Your task to perform on an android device: turn on showing notifications on the lock screen Image 0: 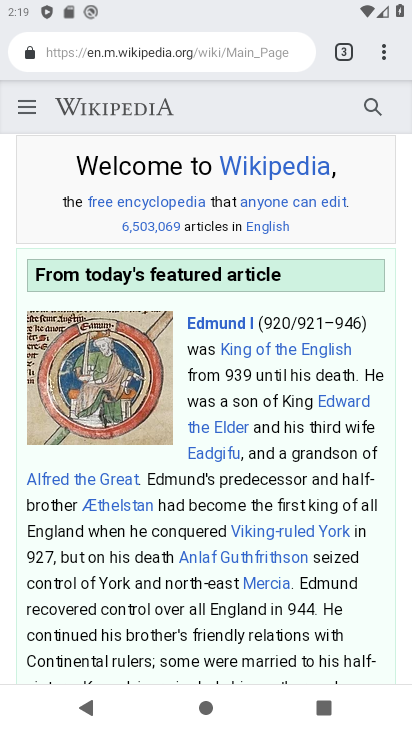
Step 0: press back button
Your task to perform on an android device: turn on showing notifications on the lock screen Image 1: 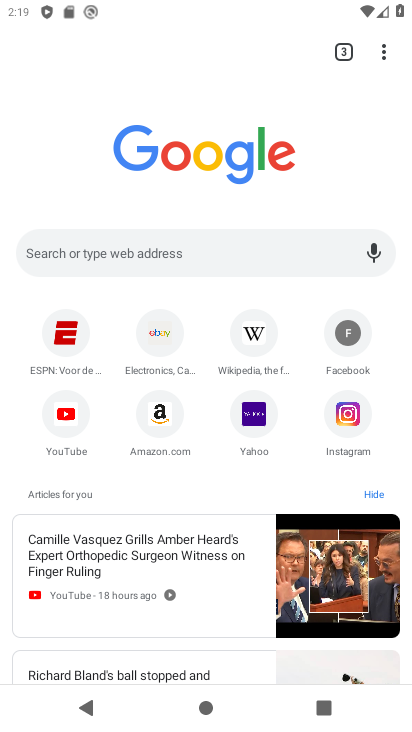
Step 1: press home button
Your task to perform on an android device: turn on showing notifications on the lock screen Image 2: 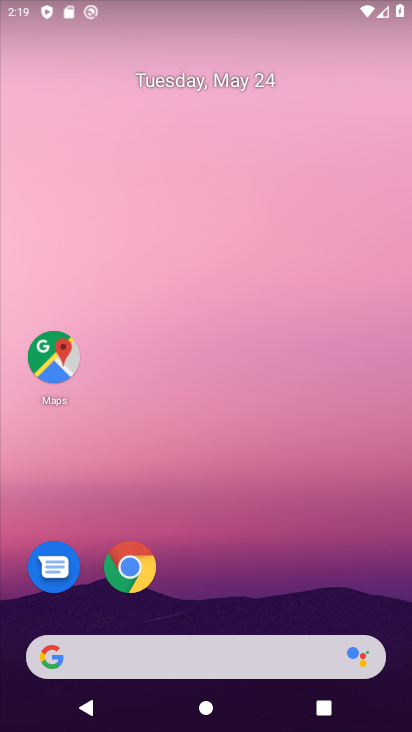
Step 2: drag from (224, 586) to (276, 18)
Your task to perform on an android device: turn on showing notifications on the lock screen Image 3: 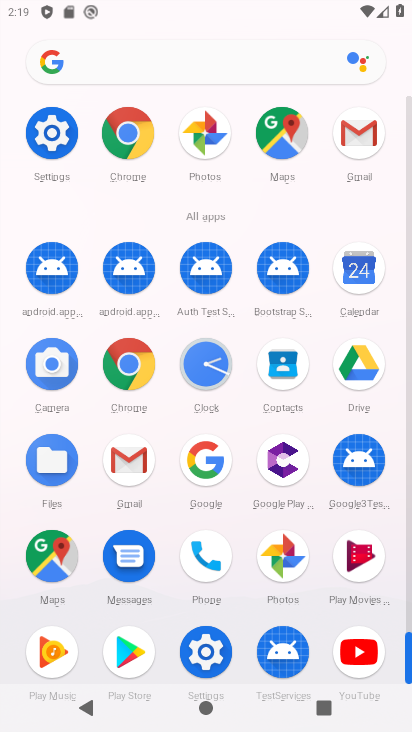
Step 3: click (43, 137)
Your task to perform on an android device: turn on showing notifications on the lock screen Image 4: 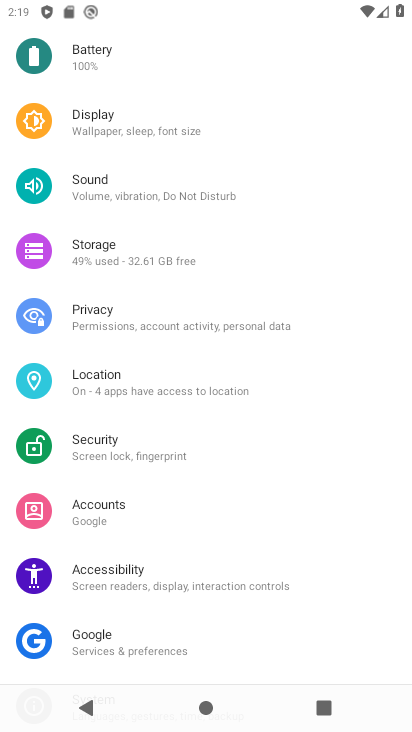
Step 4: drag from (146, 98) to (138, 635)
Your task to perform on an android device: turn on showing notifications on the lock screen Image 5: 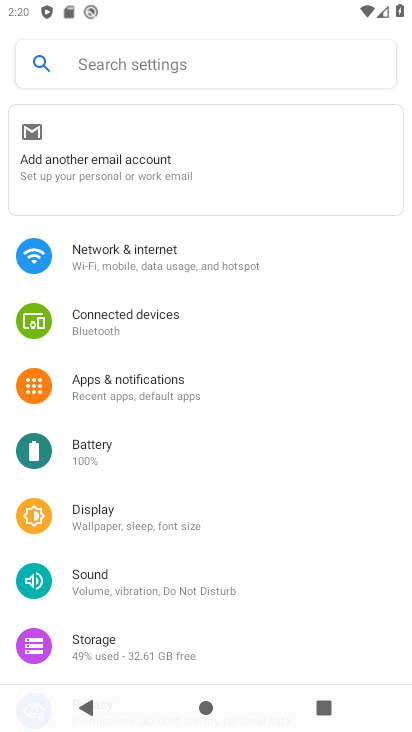
Step 5: click (136, 395)
Your task to perform on an android device: turn on showing notifications on the lock screen Image 6: 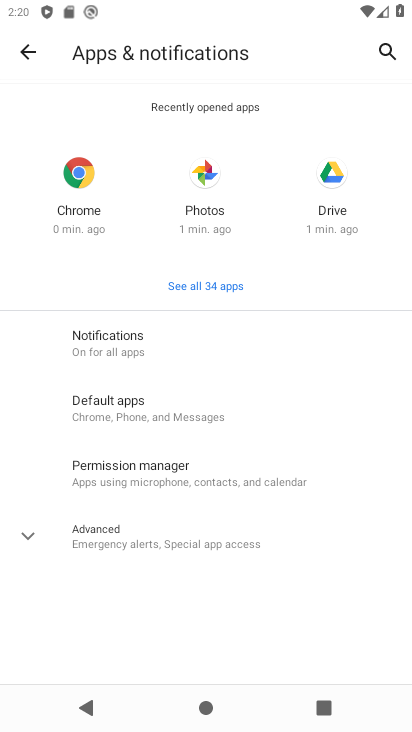
Step 6: click (102, 344)
Your task to perform on an android device: turn on showing notifications on the lock screen Image 7: 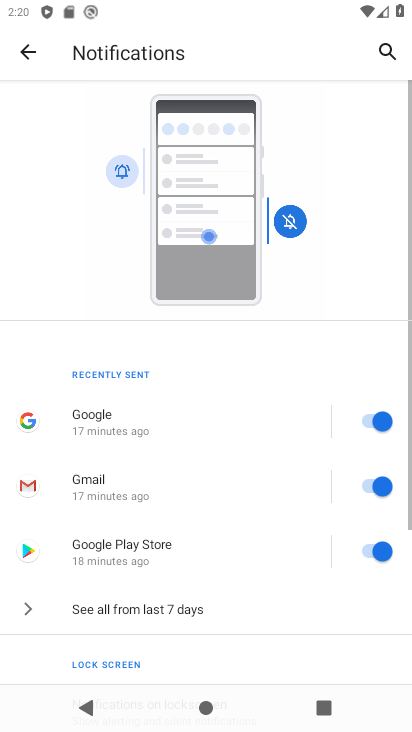
Step 7: drag from (218, 621) to (291, 149)
Your task to perform on an android device: turn on showing notifications on the lock screen Image 8: 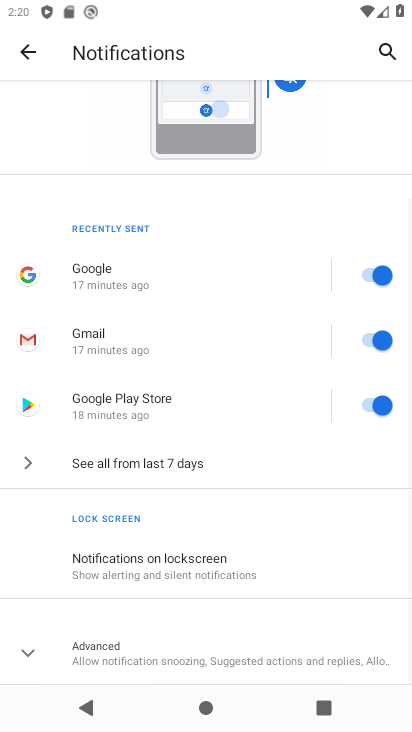
Step 8: click (178, 559)
Your task to perform on an android device: turn on showing notifications on the lock screen Image 9: 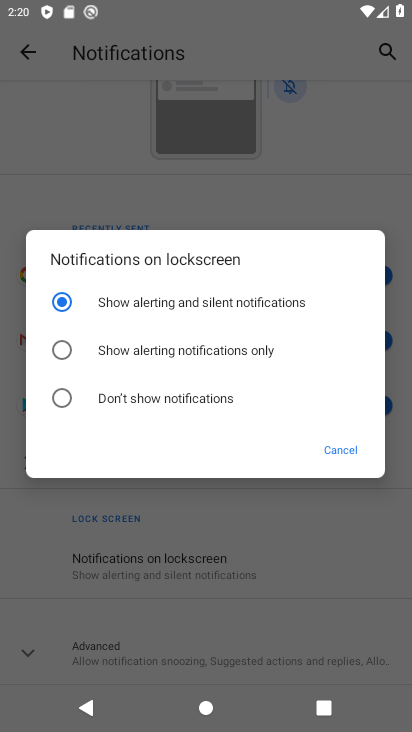
Step 9: task complete